Your task to perform on an android device: Open privacy settings Image 0: 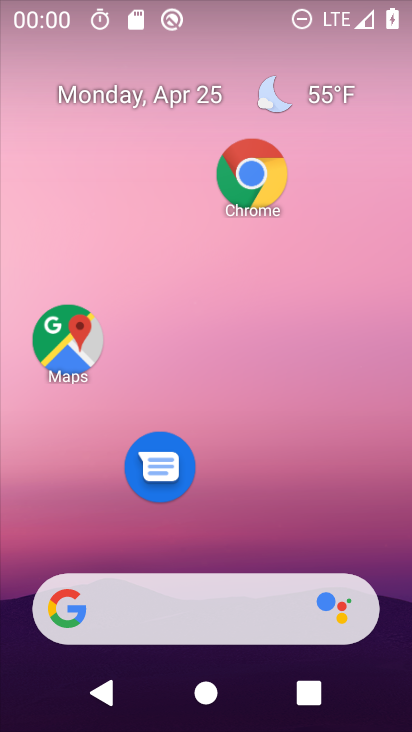
Step 0: click (254, 174)
Your task to perform on an android device: Open privacy settings Image 1: 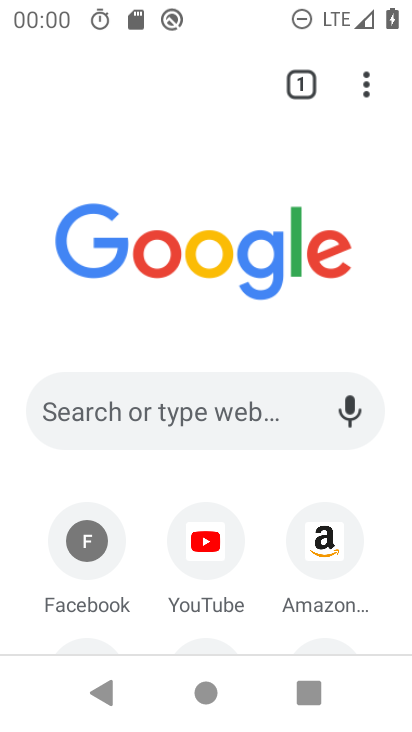
Step 1: click (361, 87)
Your task to perform on an android device: Open privacy settings Image 2: 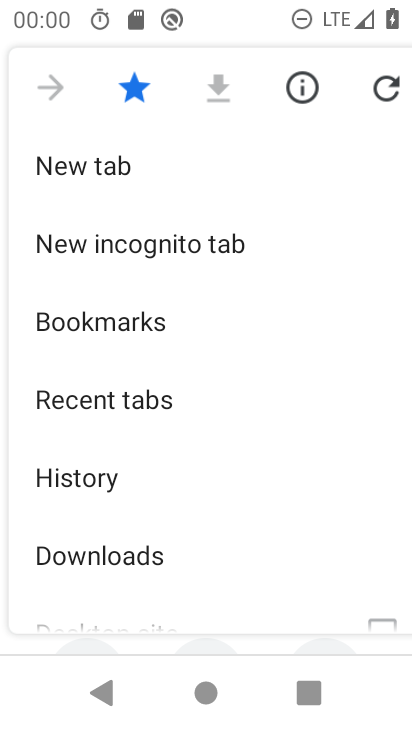
Step 2: drag from (235, 495) to (227, 20)
Your task to perform on an android device: Open privacy settings Image 3: 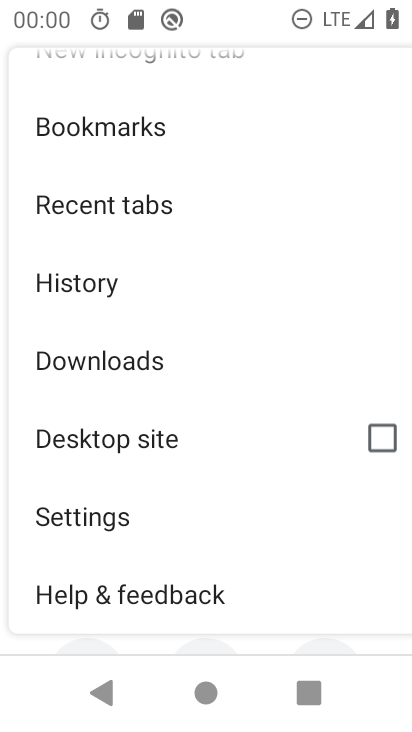
Step 3: click (133, 536)
Your task to perform on an android device: Open privacy settings Image 4: 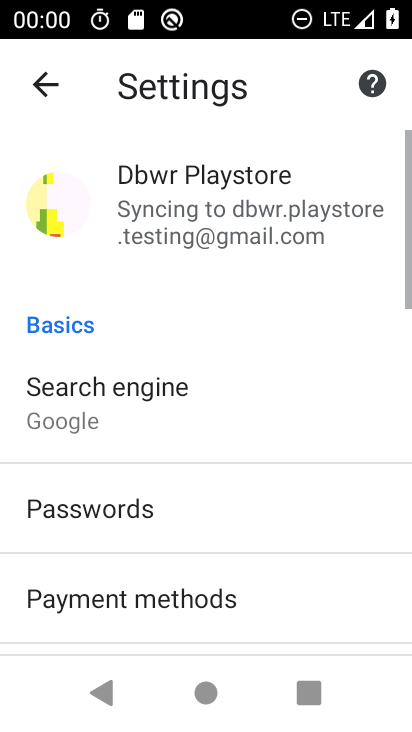
Step 4: drag from (266, 252) to (287, 125)
Your task to perform on an android device: Open privacy settings Image 5: 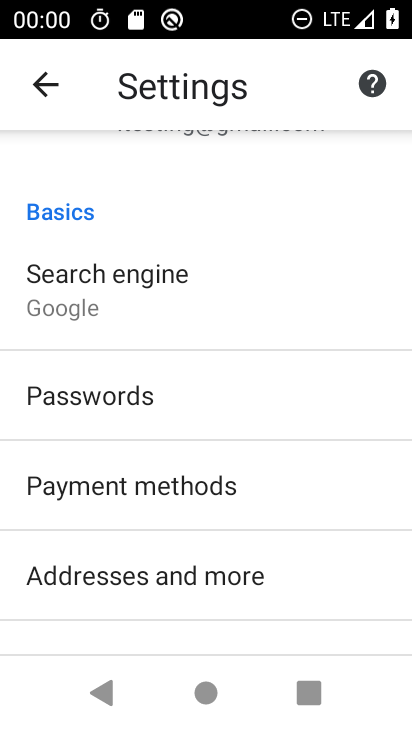
Step 5: drag from (227, 511) to (192, 136)
Your task to perform on an android device: Open privacy settings Image 6: 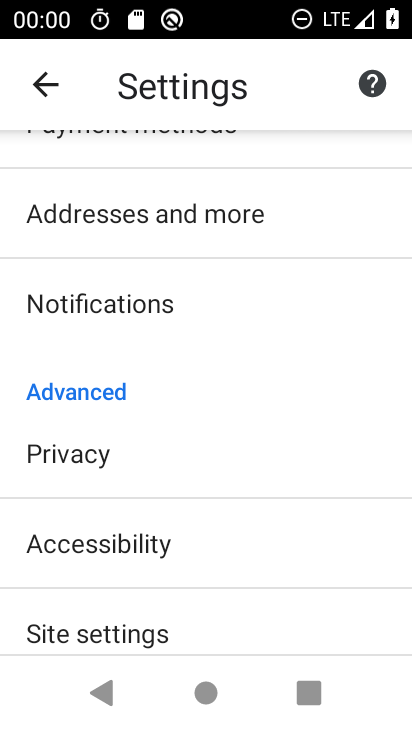
Step 6: click (108, 455)
Your task to perform on an android device: Open privacy settings Image 7: 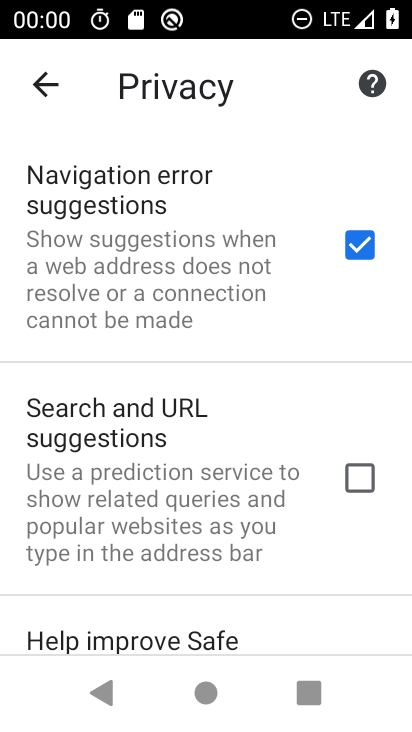
Step 7: task complete